Your task to perform on an android device: uninstall "Microsoft Excel" Image 0: 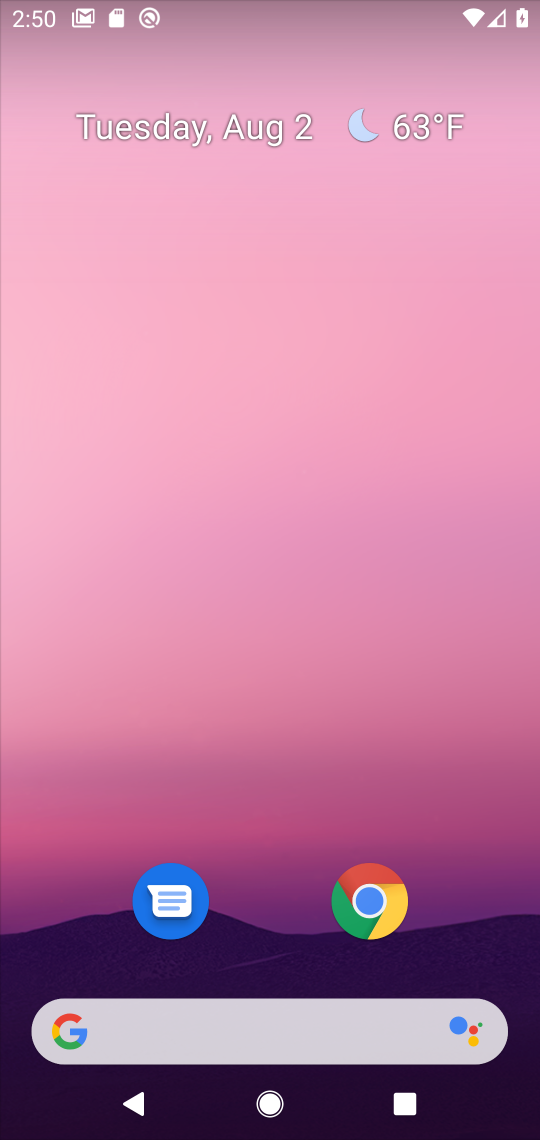
Step 0: drag from (499, 986) to (362, 152)
Your task to perform on an android device: uninstall "Microsoft Excel" Image 1: 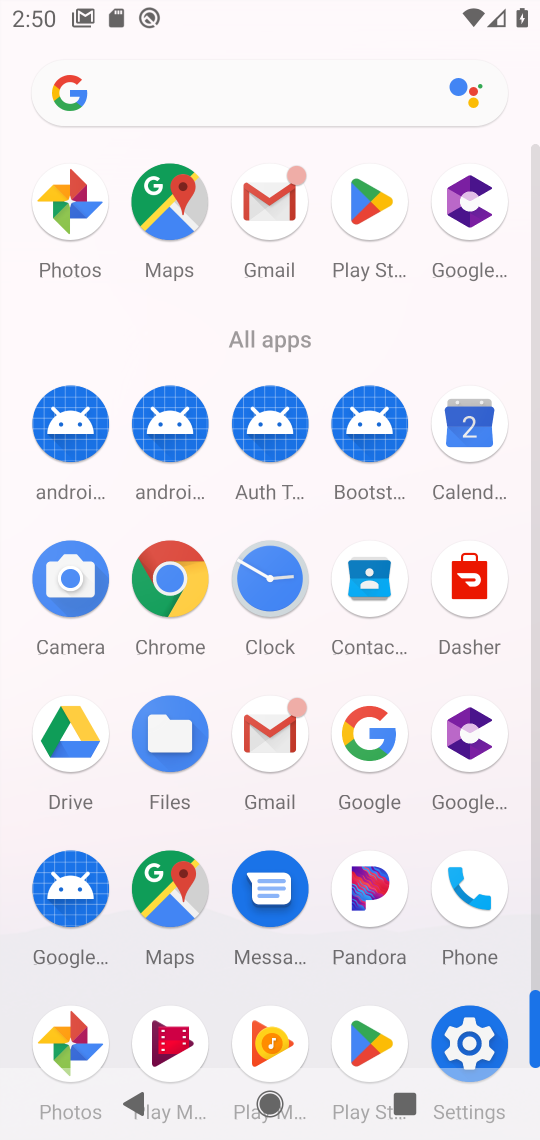
Step 1: click (365, 180)
Your task to perform on an android device: uninstall "Microsoft Excel" Image 2: 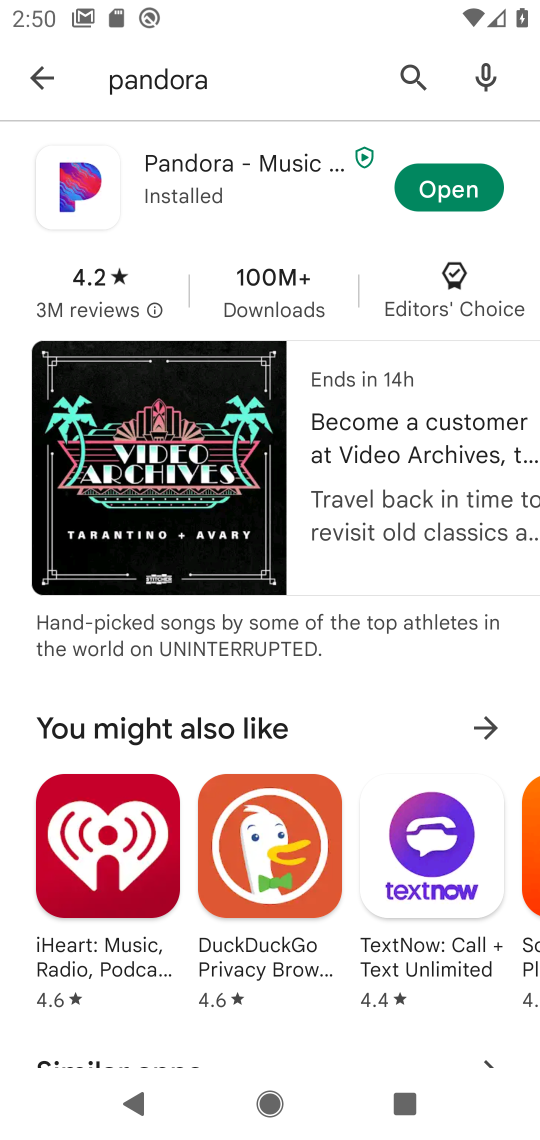
Step 2: click (399, 77)
Your task to perform on an android device: uninstall "Microsoft Excel" Image 3: 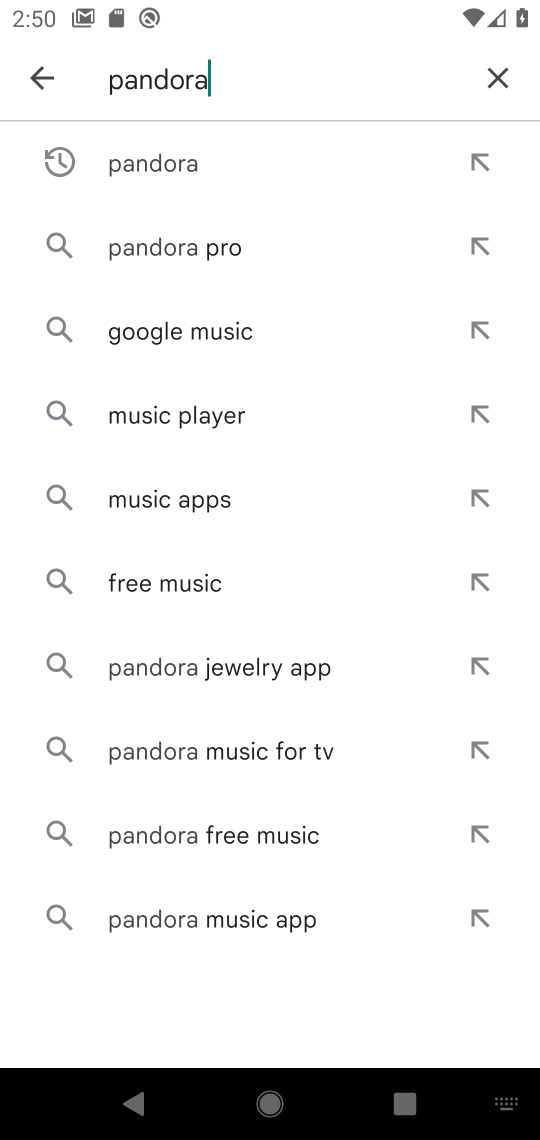
Step 3: click (493, 74)
Your task to perform on an android device: uninstall "Microsoft Excel" Image 4: 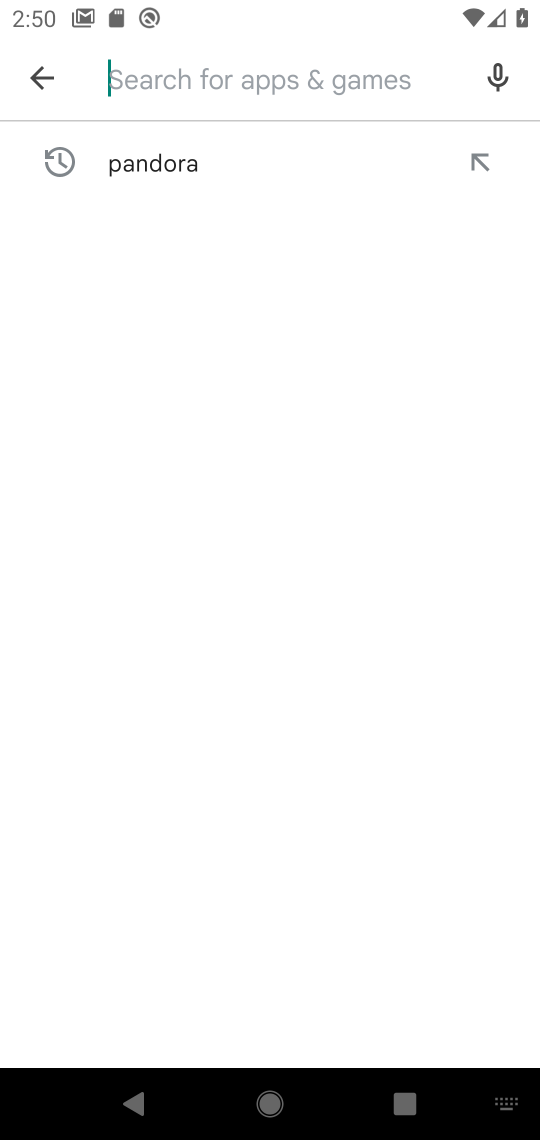
Step 4: type "microsoft excel"
Your task to perform on an android device: uninstall "Microsoft Excel" Image 5: 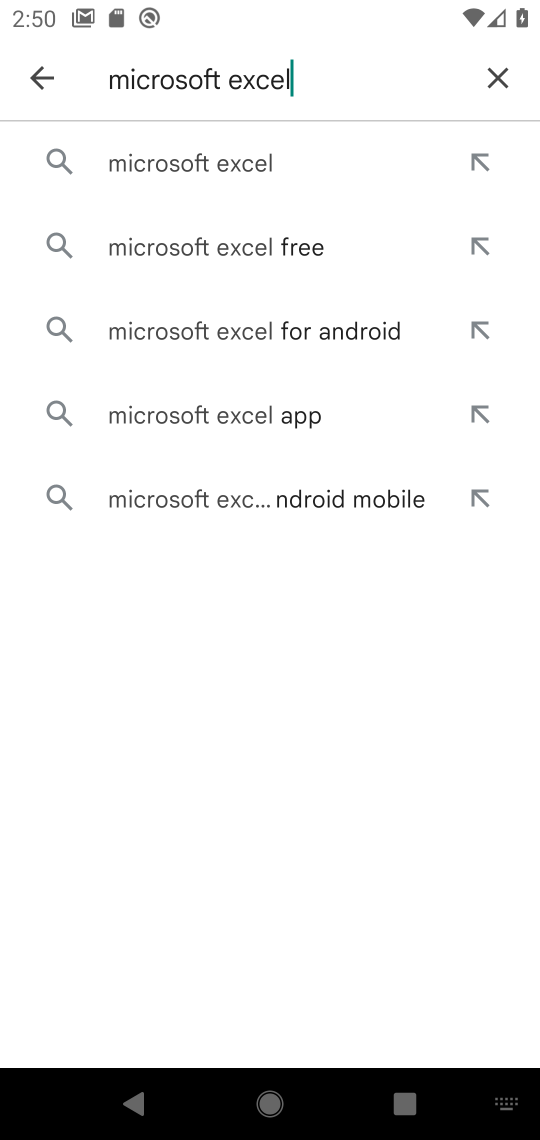
Step 5: click (261, 160)
Your task to perform on an android device: uninstall "Microsoft Excel" Image 6: 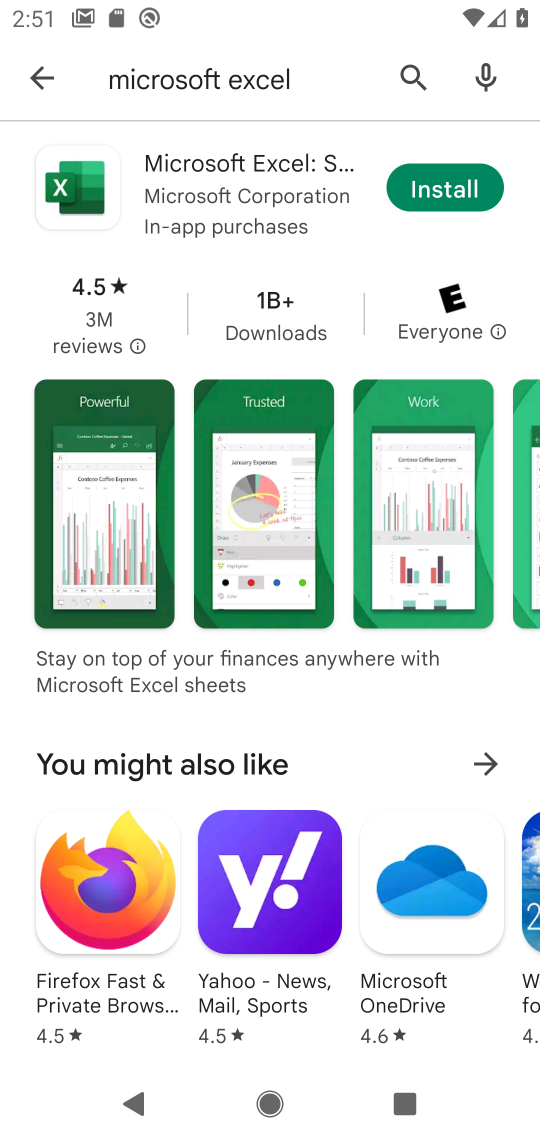
Step 6: task complete